Your task to perform on an android device: empty trash in google photos Image 0: 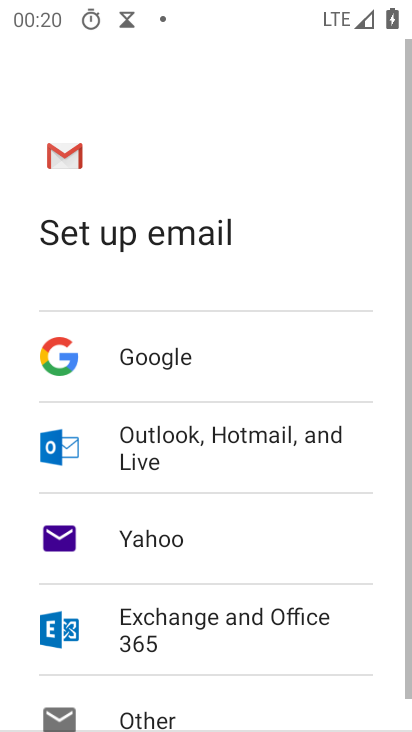
Step 0: press back button
Your task to perform on an android device: empty trash in google photos Image 1: 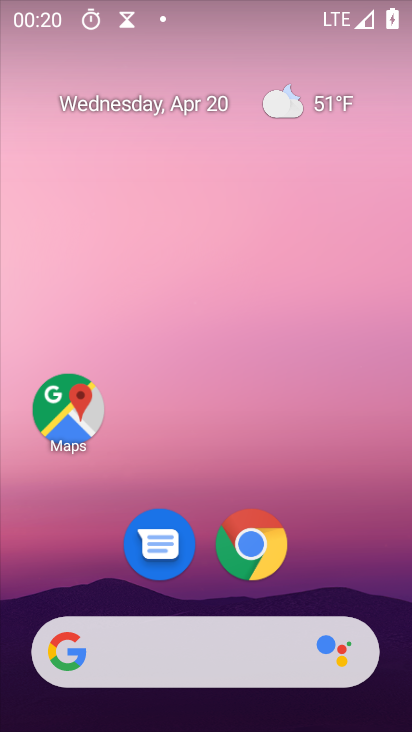
Step 1: drag from (333, 560) to (332, 218)
Your task to perform on an android device: empty trash in google photos Image 2: 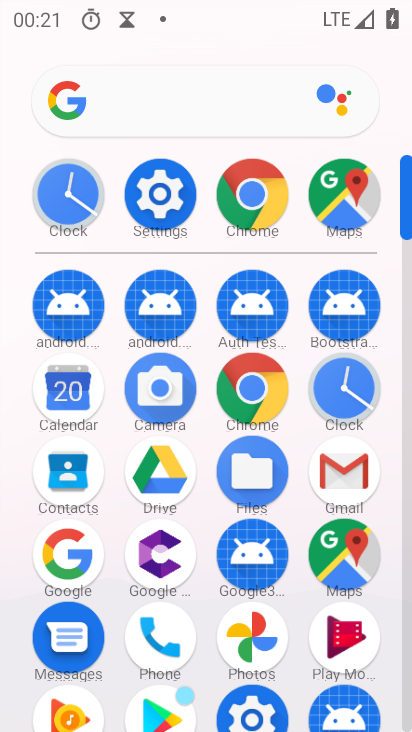
Step 2: click (263, 627)
Your task to perform on an android device: empty trash in google photos Image 3: 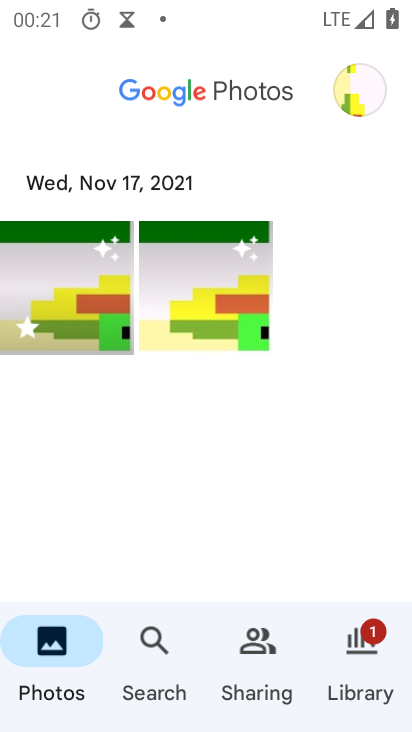
Step 3: click (347, 650)
Your task to perform on an android device: empty trash in google photos Image 4: 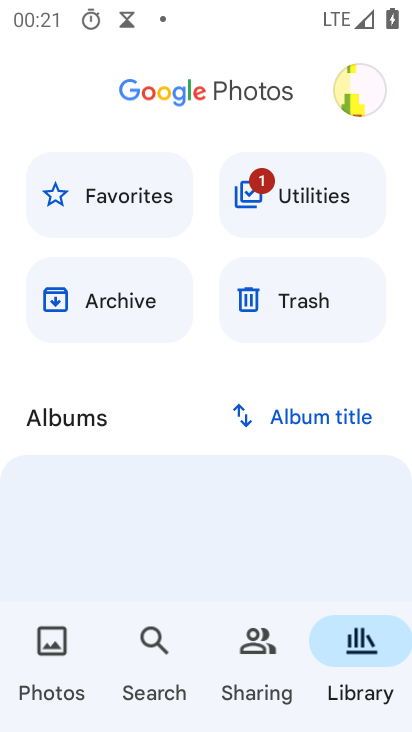
Step 4: click (259, 311)
Your task to perform on an android device: empty trash in google photos Image 5: 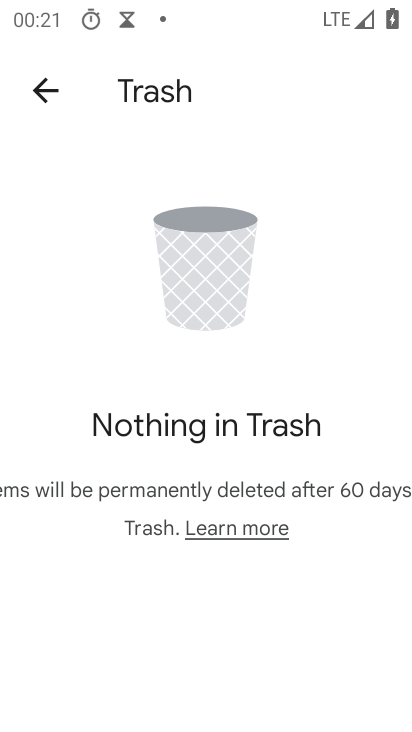
Step 5: task complete